Your task to perform on an android device: Go to internet settings Image 0: 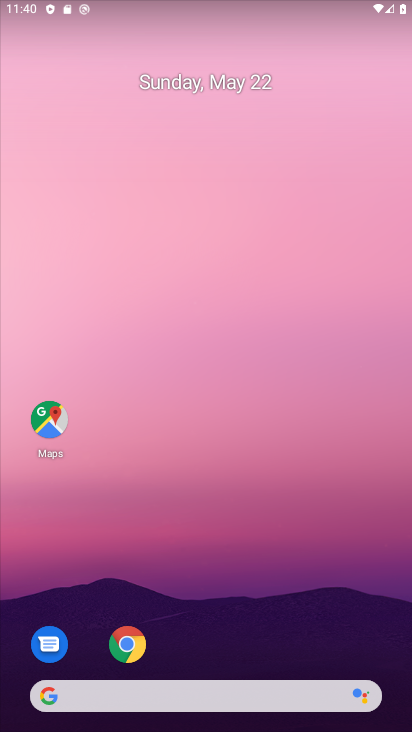
Step 0: drag from (372, 632) to (219, 91)
Your task to perform on an android device: Go to internet settings Image 1: 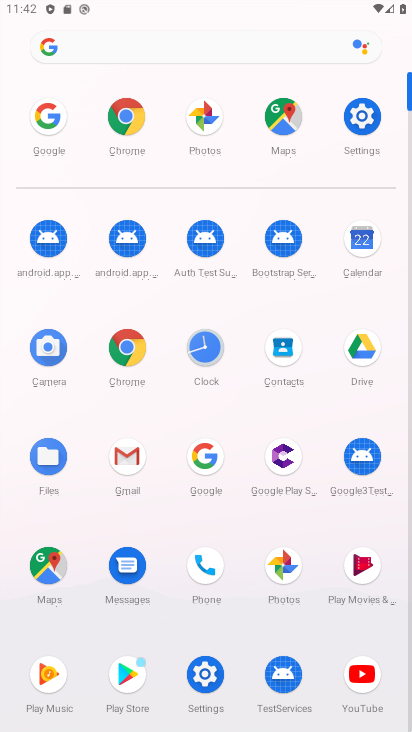
Step 1: click (191, 677)
Your task to perform on an android device: Go to internet settings Image 2: 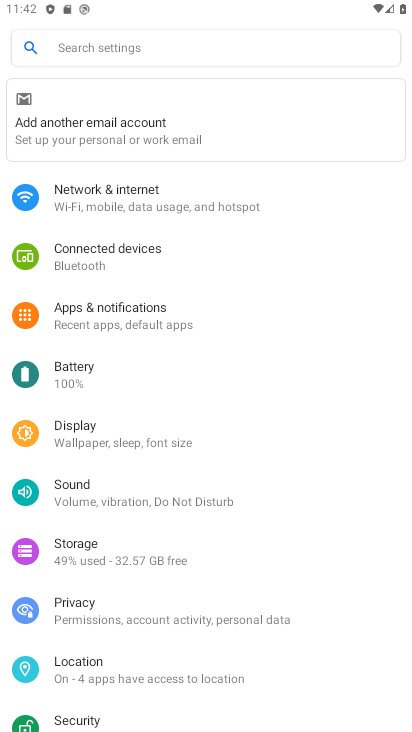
Step 2: click (148, 192)
Your task to perform on an android device: Go to internet settings Image 3: 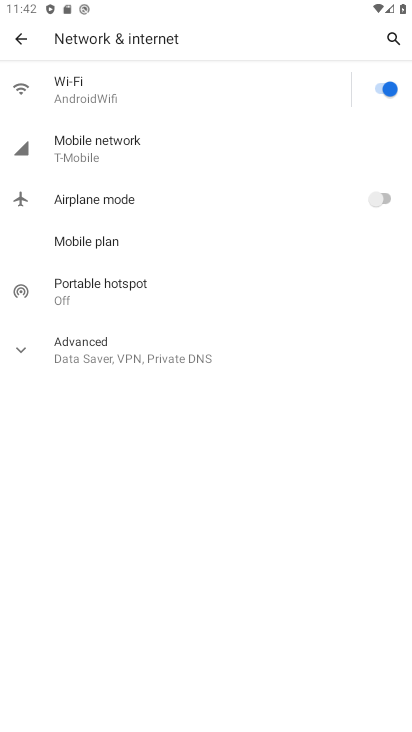
Step 3: task complete